Your task to perform on an android device: turn on priority inbox in the gmail app Image 0: 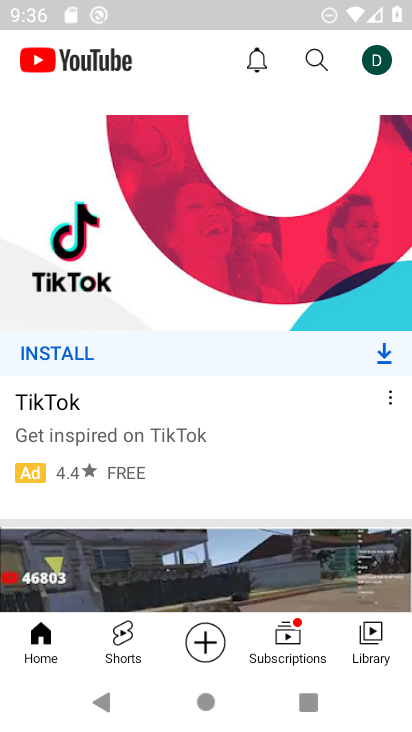
Step 0: drag from (269, 517) to (259, 244)
Your task to perform on an android device: turn on priority inbox in the gmail app Image 1: 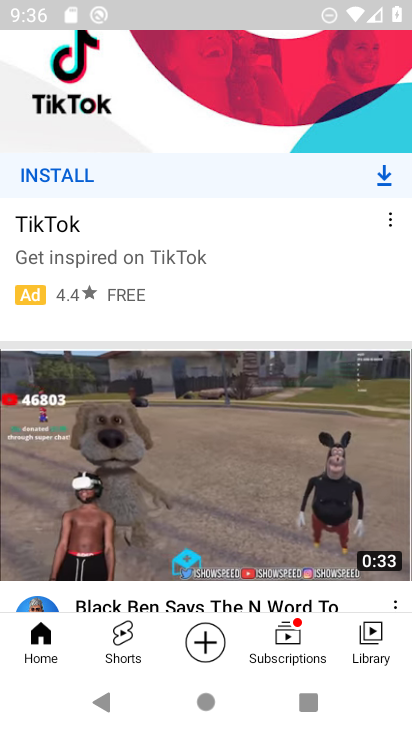
Step 1: press back button
Your task to perform on an android device: turn on priority inbox in the gmail app Image 2: 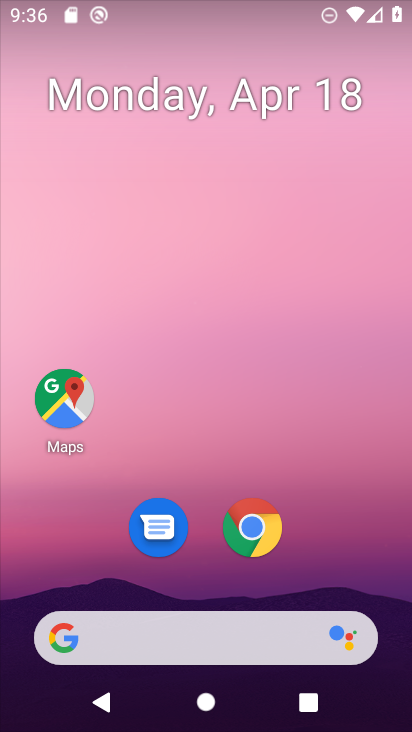
Step 2: drag from (330, 493) to (251, 31)
Your task to perform on an android device: turn on priority inbox in the gmail app Image 3: 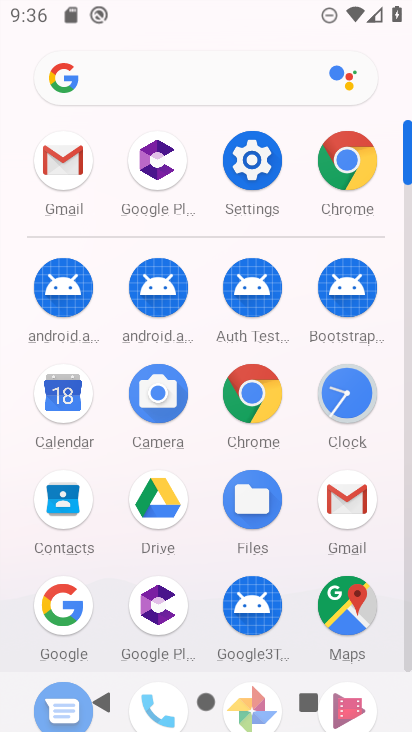
Step 3: click (350, 498)
Your task to perform on an android device: turn on priority inbox in the gmail app Image 4: 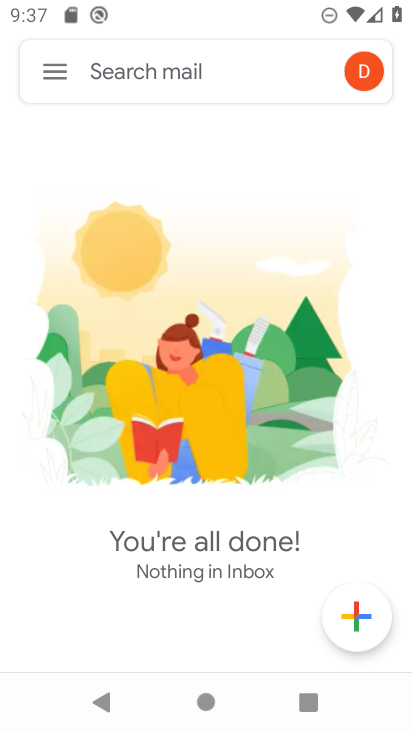
Step 4: click (44, 57)
Your task to perform on an android device: turn on priority inbox in the gmail app Image 5: 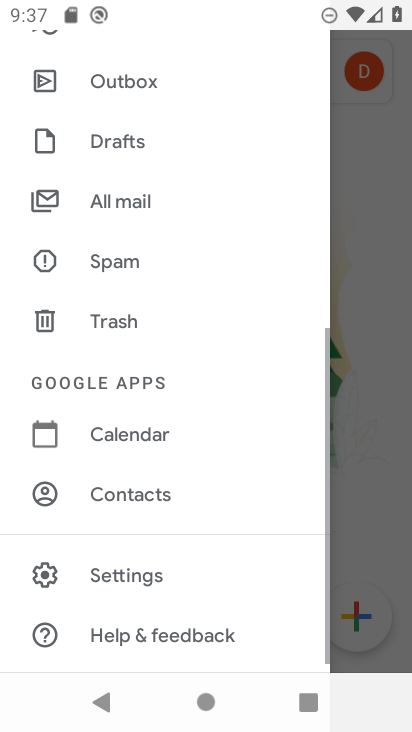
Step 5: drag from (216, 506) to (199, 74)
Your task to perform on an android device: turn on priority inbox in the gmail app Image 6: 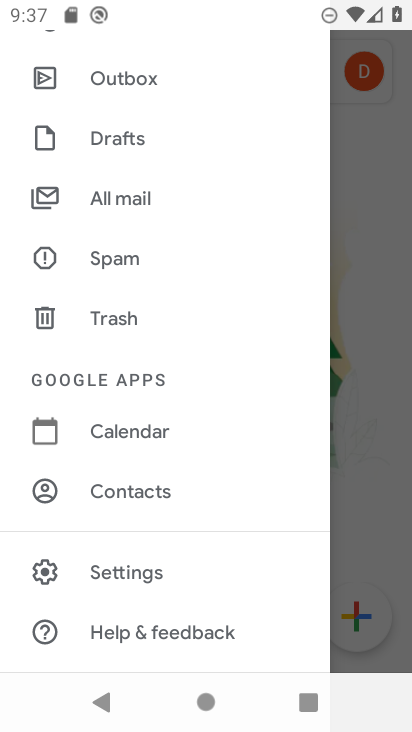
Step 6: click (143, 570)
Your task to perform on an android device: turn on priority inbox in the gmail app Image 7: 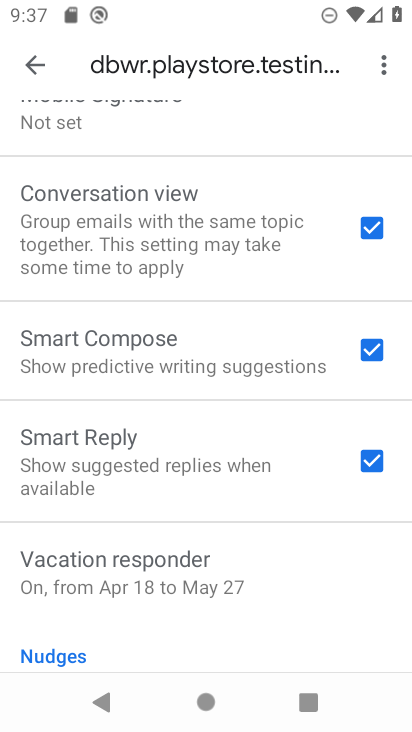
Step 7: task complete